Your task to perform on an android device: Open ESPN.com Image 0: 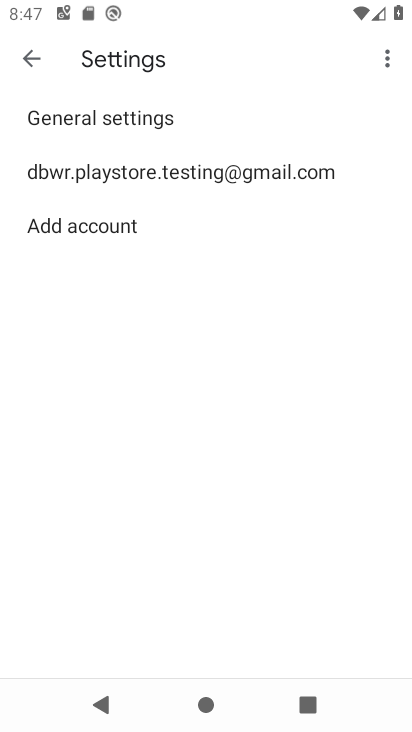
Step 0: press home button
Your task to perform on an android device: Open ESPN.com Image 1: 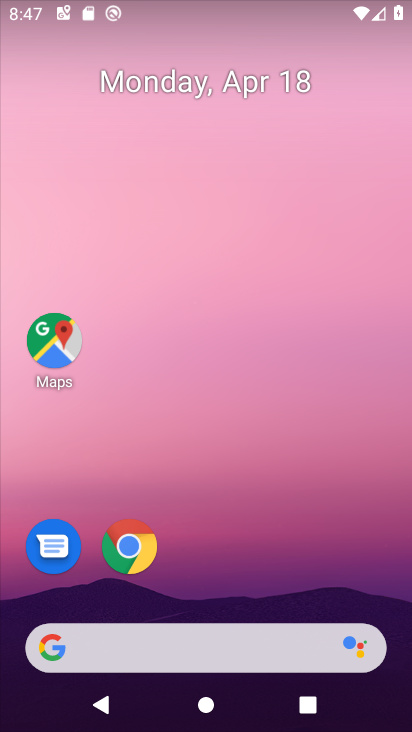
Step 1: drag from (294, 589) to (220, 195)
Your task to perform on an android device: Open ESPN.com Image 2: 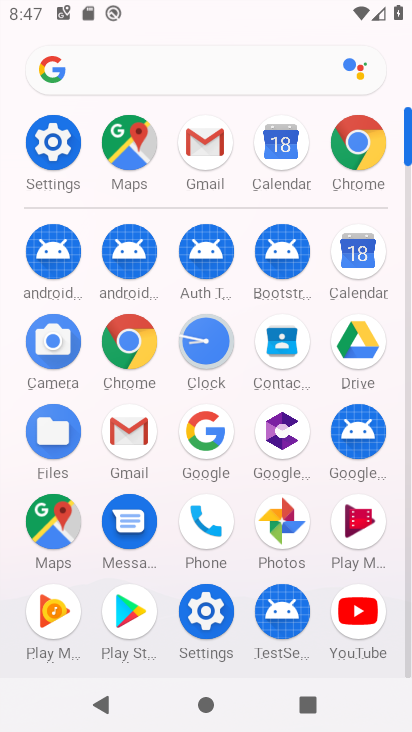
Step 2: click (120, 351)
Your task to perform on an android device: Open ESPN.com Image 3: 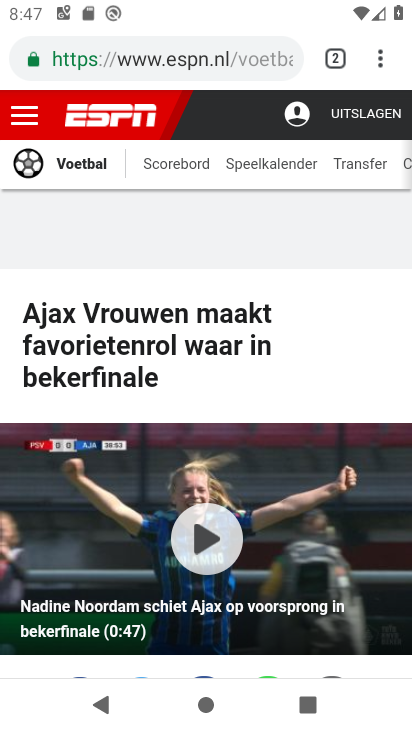
Step 3: task complete